Your task to perform on an android device: open a new tab in the chrome app Image 0: 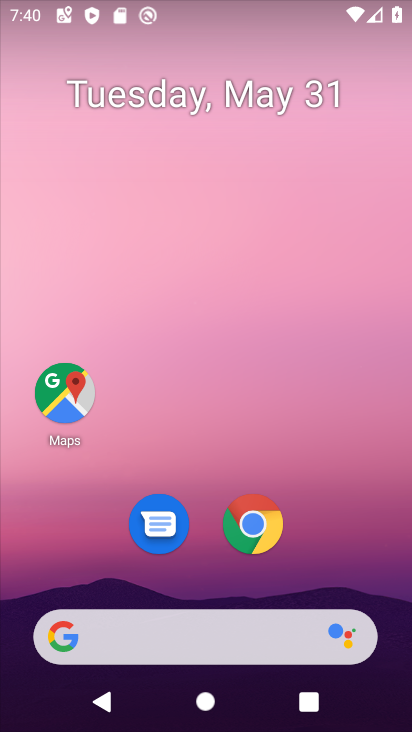
Step 0: click (264, 525)
Your task to perform on an android device: open a new tab in the chrome app Image 1: 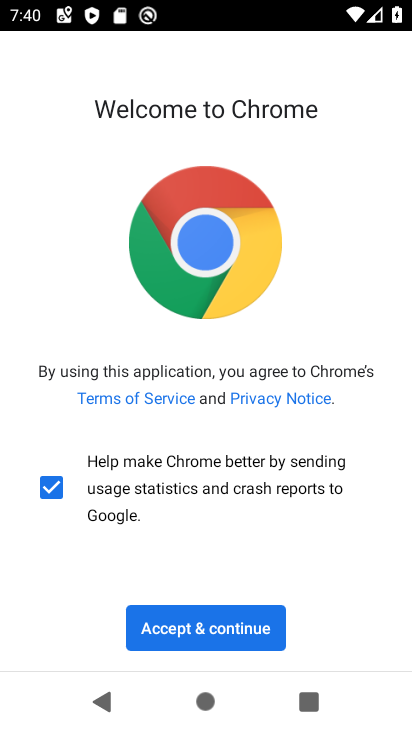
Step 1: click (256, 628)
Your task to perform on an android device: open a new tab in the chrome app Image 2: 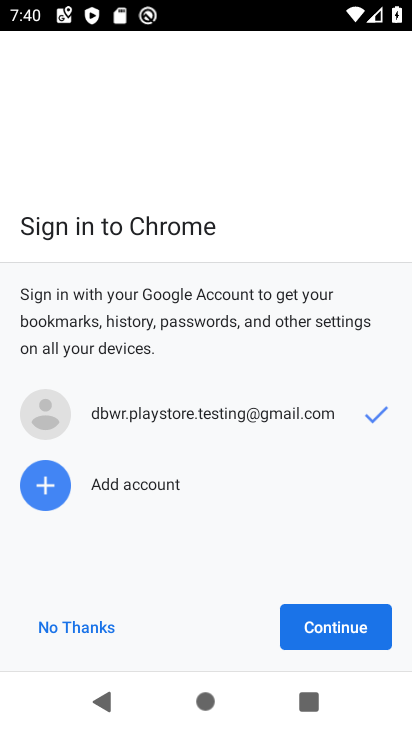
Step 2: click (326, 622)
Your task to perform on an android device: open a new tab in the chrome app Image 3: 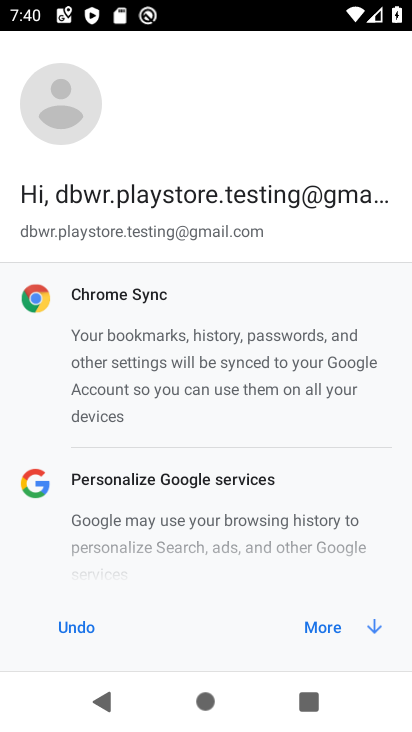
Step 3: click (326, 622)
Your task to perform on an android device: open a new tab in the chrome app Image 4: 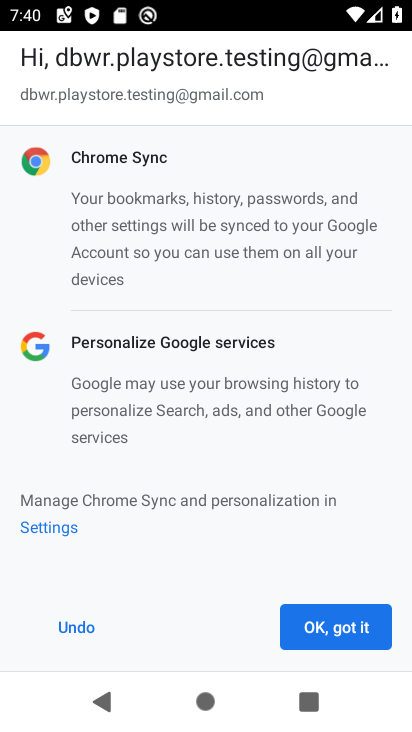
Step 4: click (326, 622)
Your task to perform on an android device: open a new tab in the chrome app Image 5: 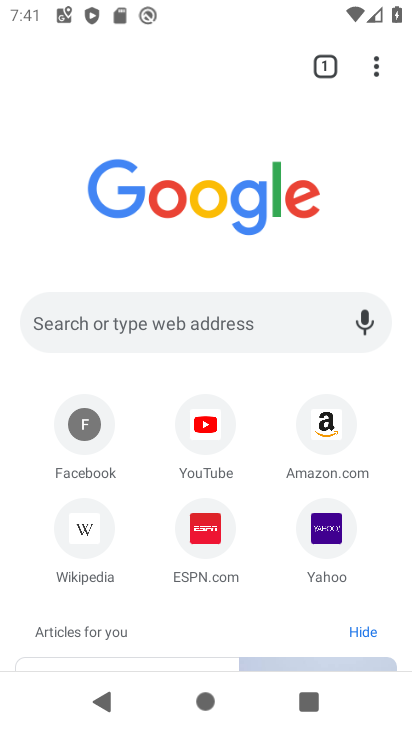
Step 5: click (375, 60)
Your task to perform on an android device: open a new tab in the chrome app Image 6: 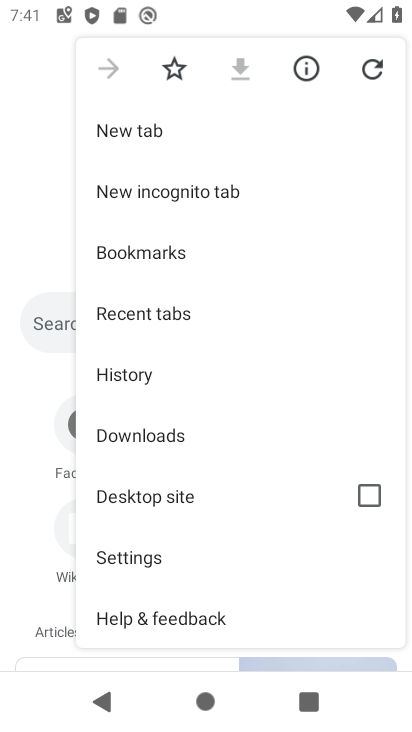
Step 6: click (259, 121)
Your task to perform on an android device: open a new tab in the chrome app Image 7: 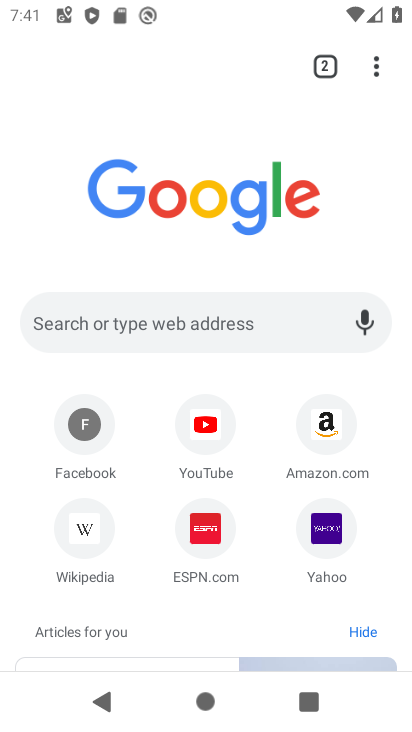
Step 7: task complete